Your task to perform on an android device: Search for usb-c on ebay, select the first entry, and add it to the cart. Image 0: 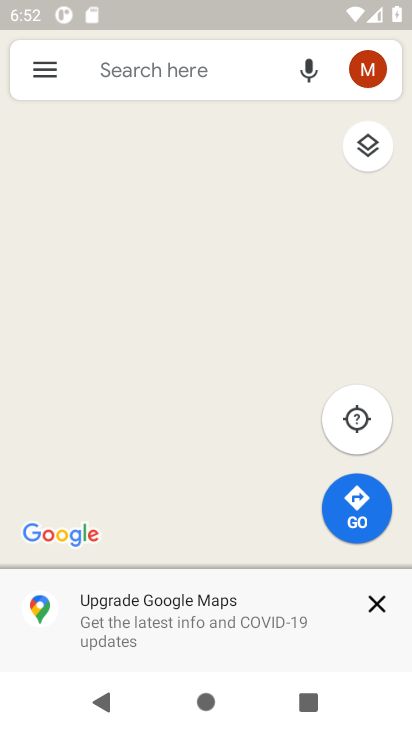
Step 0: click (386, 617)
Your task to perform on an android device: Search for usb-c on ebay, select the first entry, and add it to the cart. Image 1: 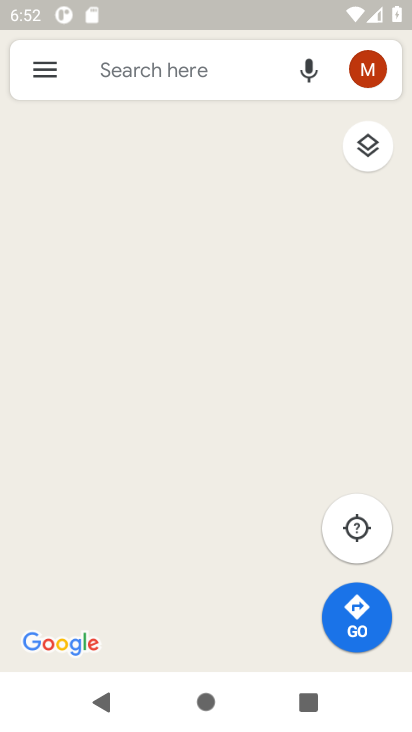
Step 1: press home button
Your task to perform on an android device: Search for usb-c on ebay, select the first entry, and add it to the cart. Image 2: 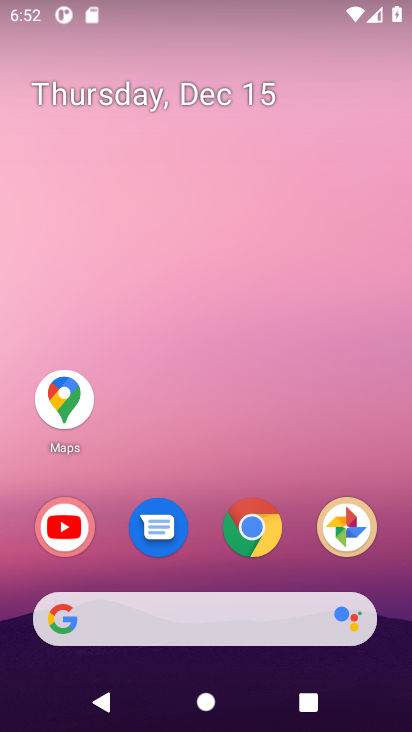
Step 2: click (208, 616)
Your task to perform on an android device: Search for usb-c on ebay, select the first entry, and add it to the cart. Image 3: 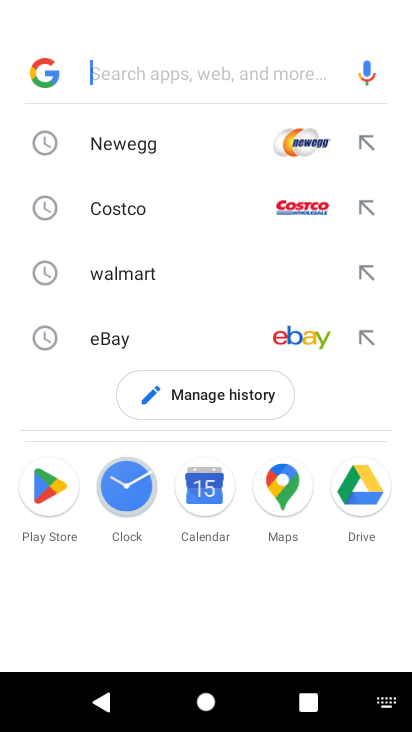
Step 3: click (144, 337)
Your task to perform on an android device: Search for usb-c on ebay, select the first entry, and add it to the cart. Image 4: 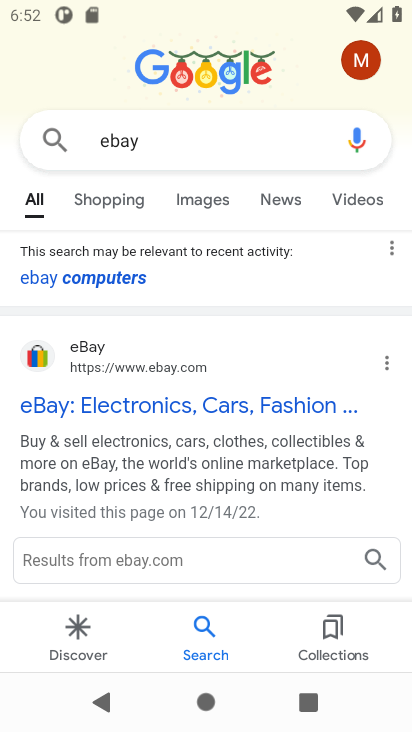
Step 4: click (77, 380)
Your task to perform on an android device: Search for usb-c on ebay, select the first entry, and add it to the cart. Image 5: 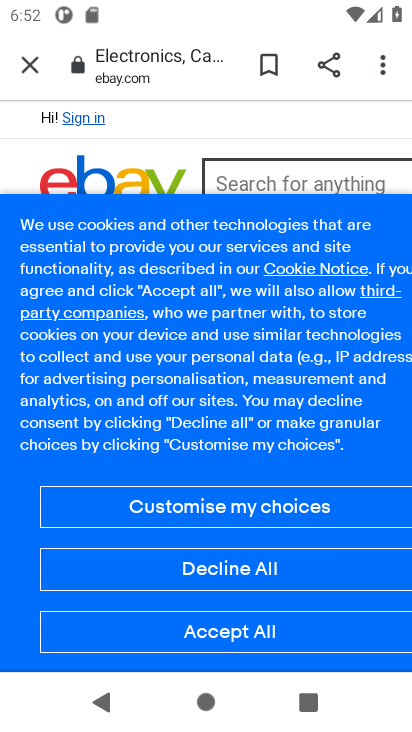
Step 5: click (237, 622)
Your task to perform on an android device: Search for usb-c on ebay, select the first entry, and add it to the cart. Image 6: 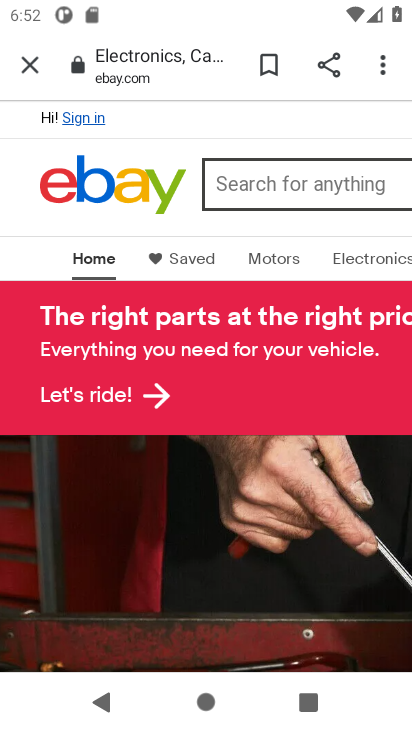
Step 6: click (320, 183)
Your task to perform on an android device: Search for usb-c on ebay, select the first entry, and add it to the cart. Image 7: 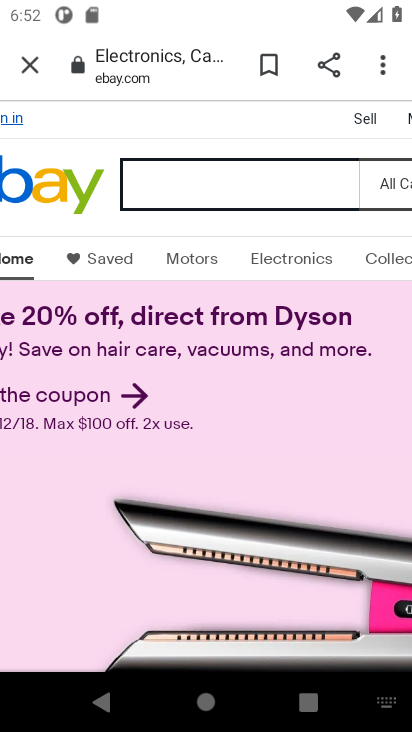
Step 7: type "usb-c "
Your task to perform on an android device: Search for usb-c on ebay, select the first entry, and add it to the cart. Image 8: 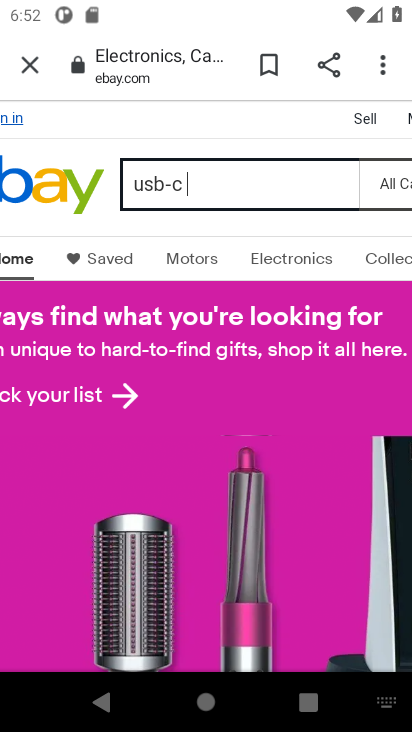
Step 8: drag from (216, 234) to (30, 234)
Your task to perform on an android device: Search for usb-c on ebay, select the first entry, and add it to the cart. Image 9: 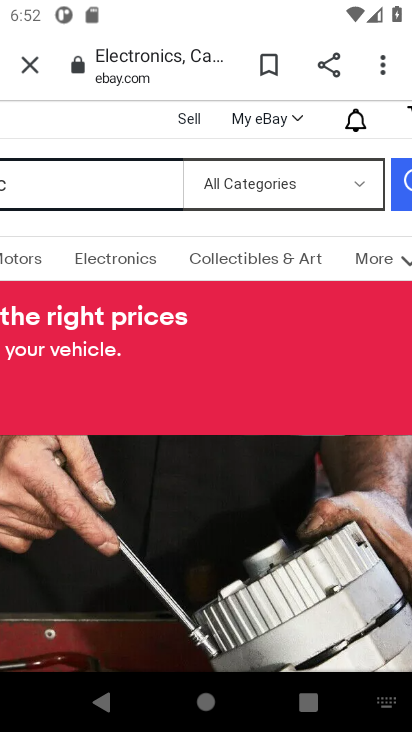
Step 9: click (408, 198)
Your task to perform on an android device: Search for usb-c on ebay, select the first entry, and add it to the cart. Image 10: 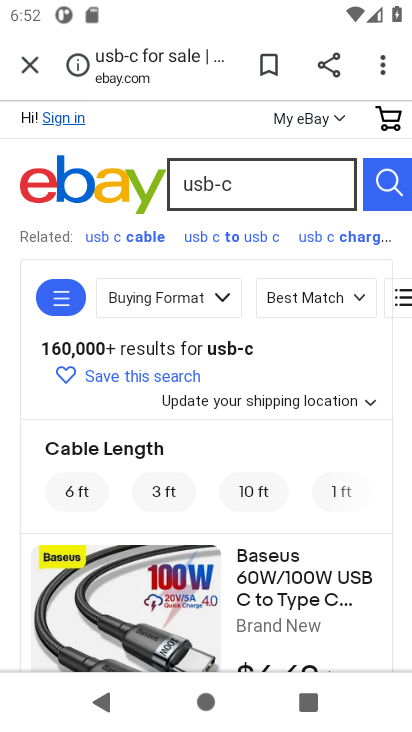
Step 10: click (210, 598)
Your task to perform on an android device: Search for usb-c on ebay, select the first entry, and add it to the cart. Image 11: 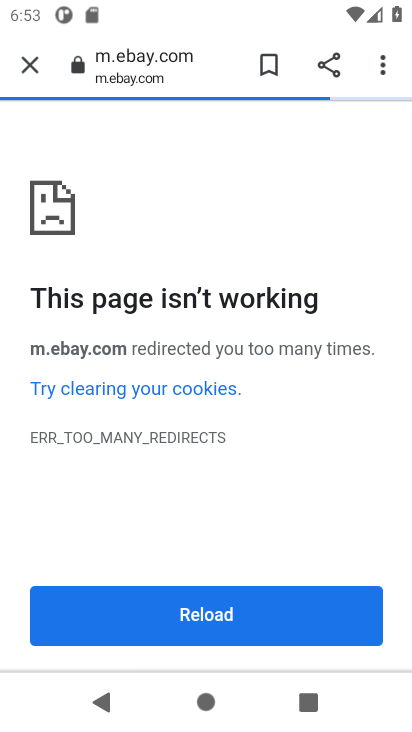
Step 11: task complete